Your task to perform on an android device: turn vacation reply on in the gmail app Image 0: 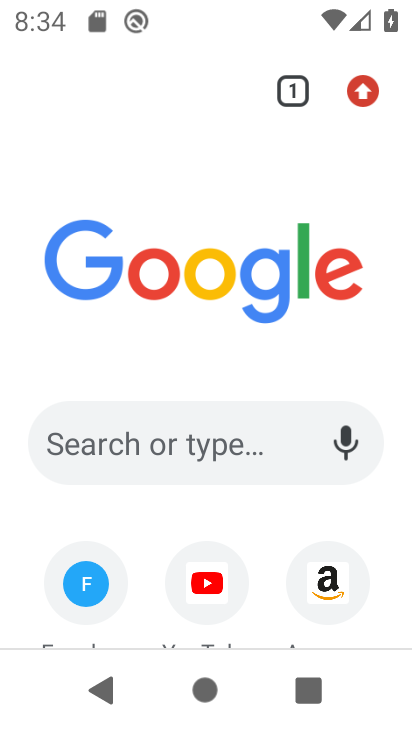
Step 0: press home button
Your task to perform on an android device: turn vacation reply on in the gmail app Image 1: 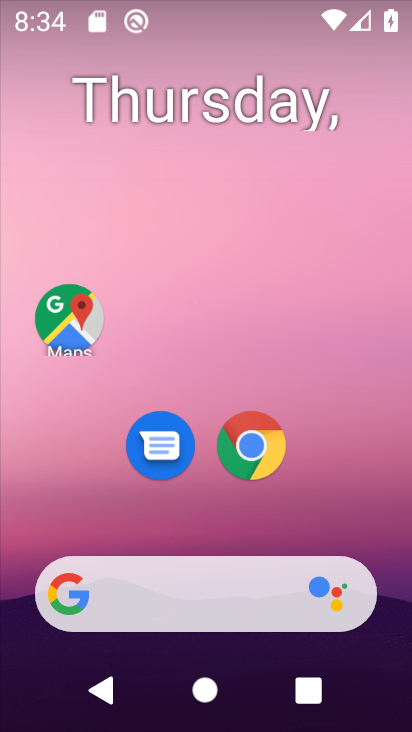
Step 1: drag from (197, 381) to (228, 19)
Your task to perform on an android device: turn vacation reply on in the gmail app Image 2: 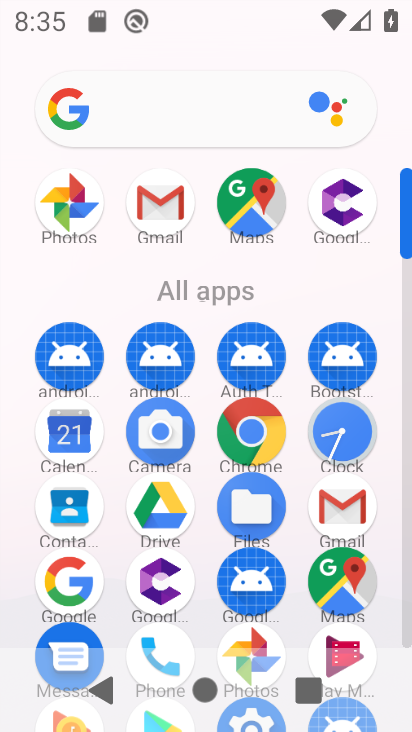
Step 2: click (158, 206)
Your task to perform on an android device: turn vacation reply on in the gmail app Image 3: 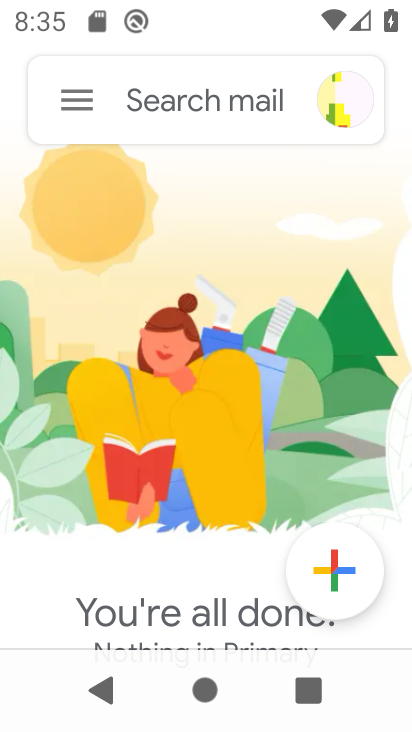
Step 3: click (77, 101)
Your task to perform on an android device: turn vacation reply on in the gmail app Image 4: 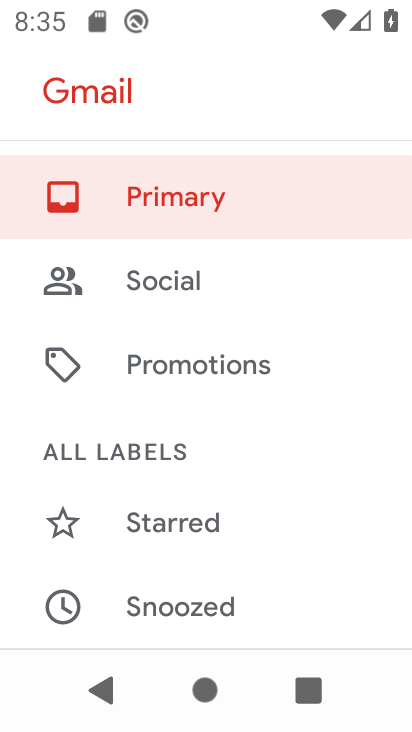
Step 4: drag from (194, 580) to (241, 103)
Your task to perform on an android device: turn vacation reply on in the gmail app Image 5: 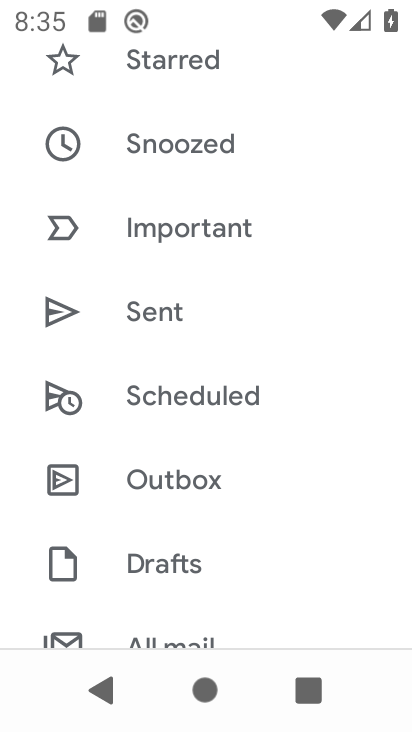
Step 5: drag from (199, 551) to (237, 202)
Your task to perform on an android device: turn vacation reply on in the gmail app Image 6: 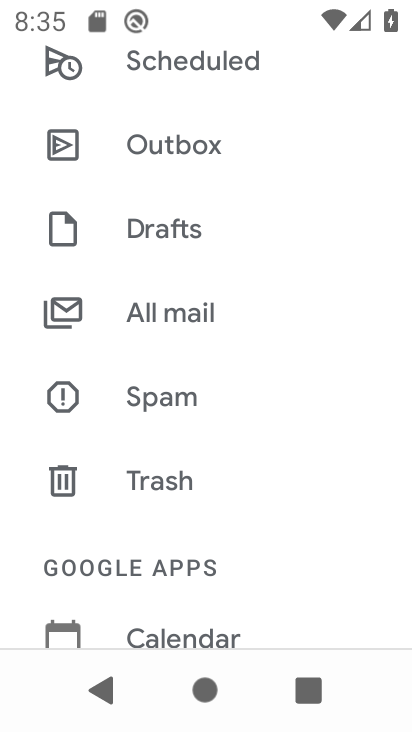
Step 6: drag from (190, 521) to (266, 155)
Your task to perform on an android device: turn vacation reply on in the gmail app Image 7: 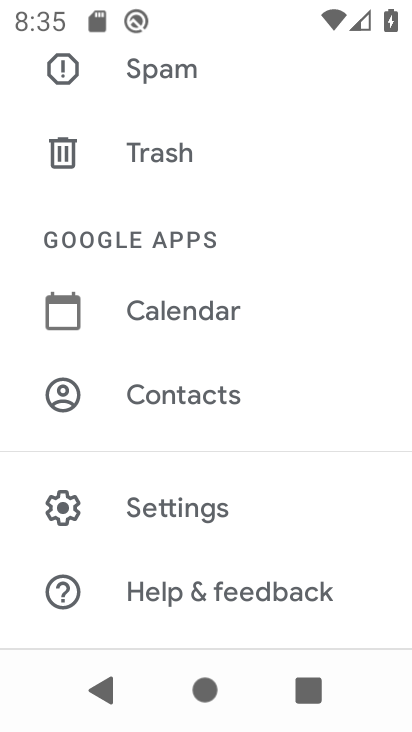
Step 7: click (184, 512)
Your task to perform on an android device: turn vacation reply on in the gmail app Image 8: 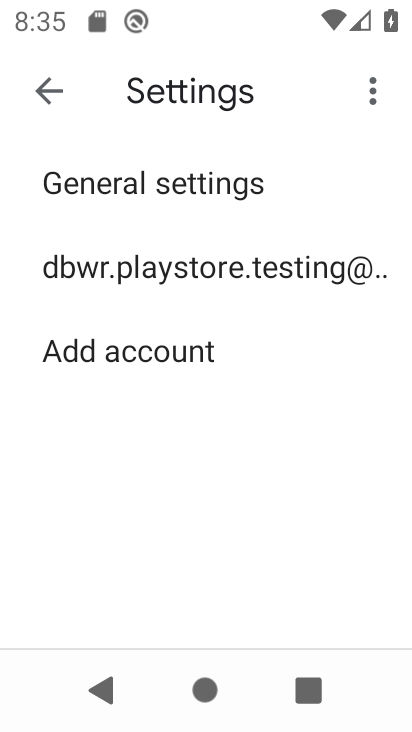
Step 8: click (165, 270)
Your task to perform on an android device: turn vacation reply on in the gmail app Image 9: 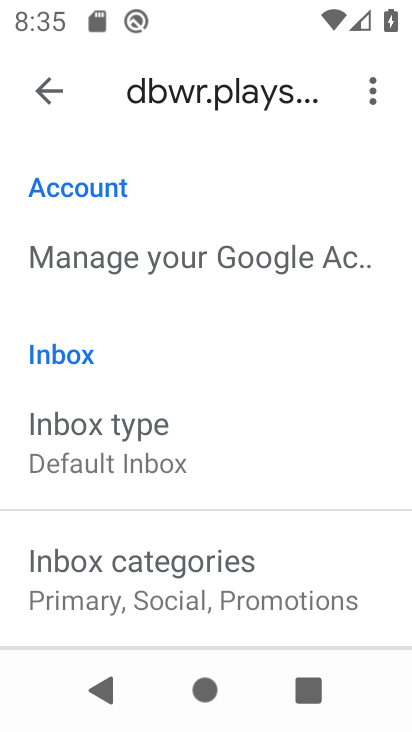
Step 9: drag from (181, 519) to (238, 107)
Your task to perform on an android device: turn vacation reply on in the gmail app Image 10: 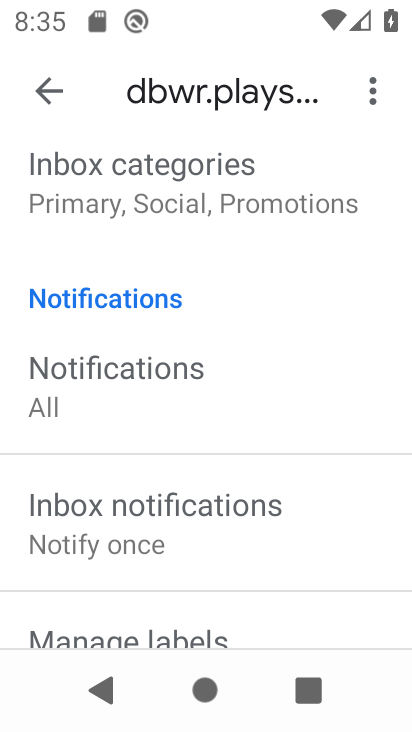
Step 10: drag from (205, 566) to (231, 193)
Your task to perform on an android device: turn vacation reply on in the gmail app Image 11: 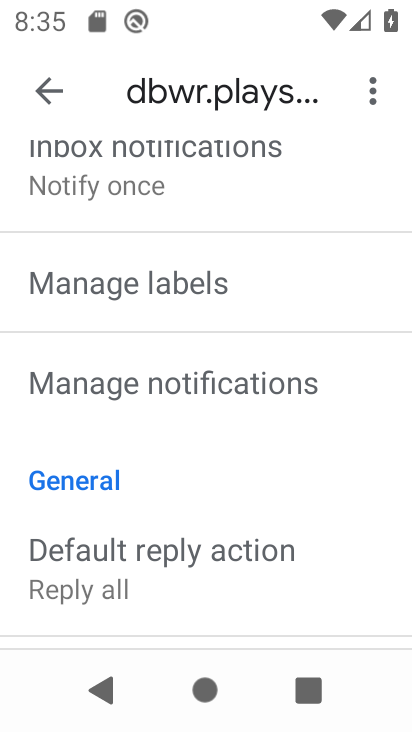
Step 11: drag from (191, 537) to (249, 142)
Your task to perform on an android device: turn vacation reply on in the gmail app Image 12: 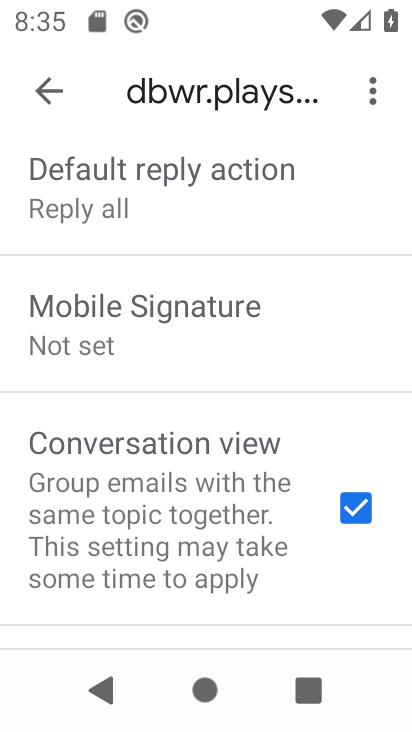
Step 12: drag from (187, 491) to (243, 198)
Your task to perform on an android device: turn vacation reply on in the gmail app Image 13: 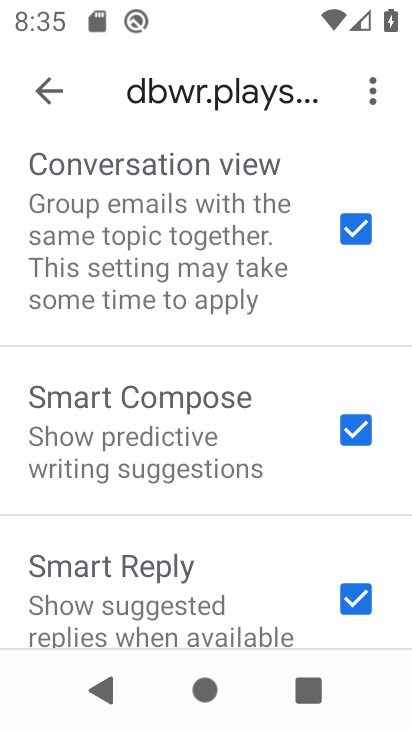
Step 13: drag from (214, 492) to (261, 162)
Your task to perform on an android device: turn vacation reply on in the gmail app Image 14: 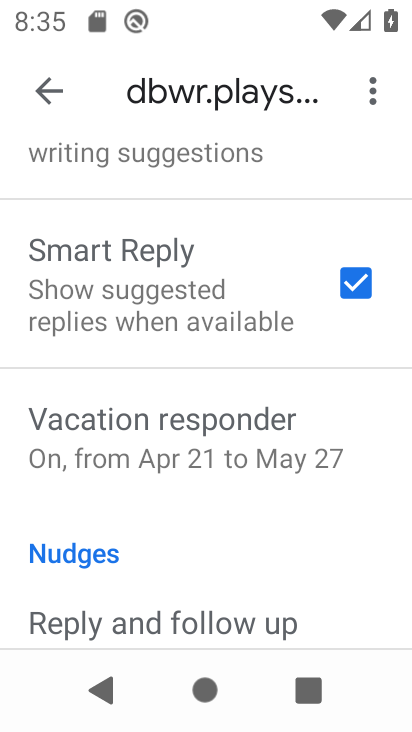
Step 14: click (190, 443)
Your task to perform on an android device: turn vacation reply on in the gmail app Image 15: 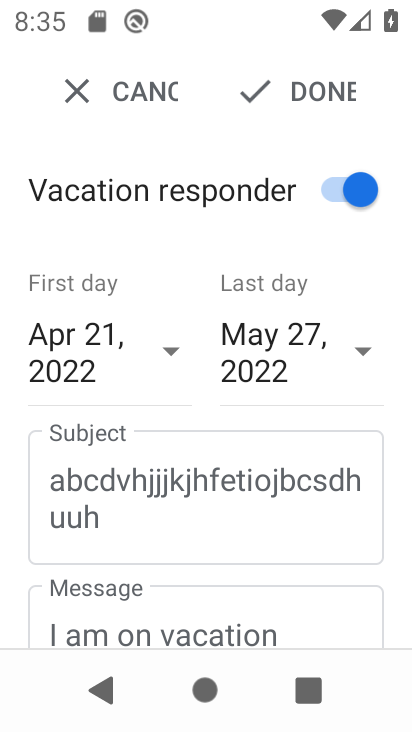
Step 15: task complete